Your task to perform on an android device: Open the Play Movies app and select the watchlist tab. Image 0: 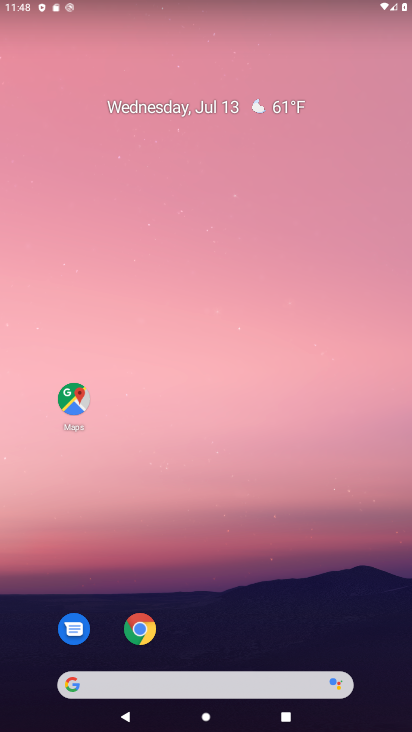
Step 0: drag from (246, 570) to (137, 102)
Your task to perform on an android device: Open the Play Movies app and select the watchlist tab. Image 1: 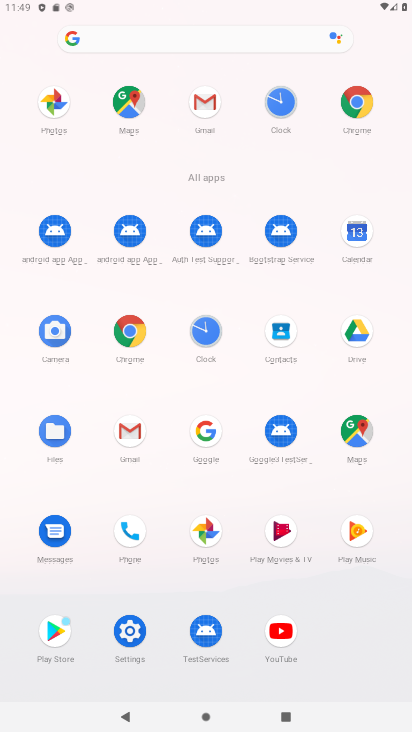
Step 1: click (278, 534)
Your task to perform on an android device: Open the Play Movies app and select the watchlist tab. Image 2: 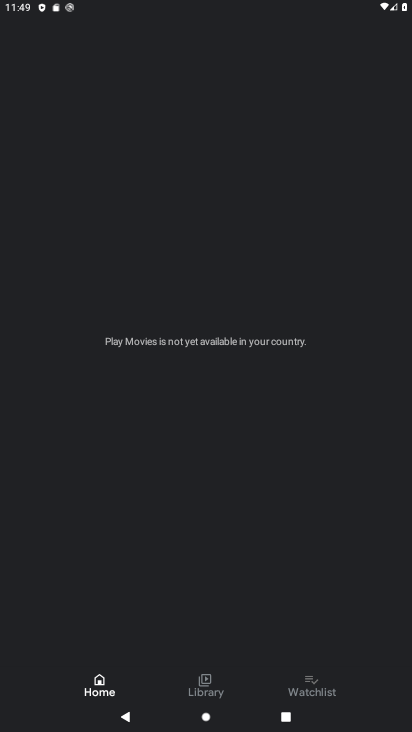
Step 2: click (305, 676)
Your task to perform on an android device: Open the Play Movies app and select the watchlist tab. Image 3: 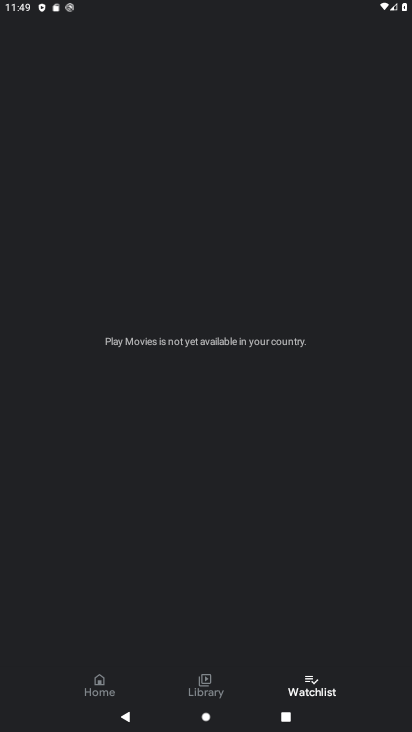
Step 3: task complete